Your task to perform on an android device: Do I have any events tomorrow? Image 0: 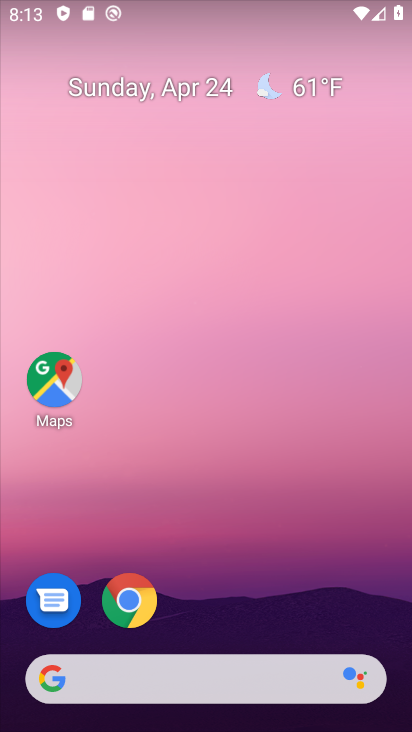
Step 0: drag from (200, 724) to (200, 139)
Your task to perform on an android device: Do I have any events tomorrow? Image 1: 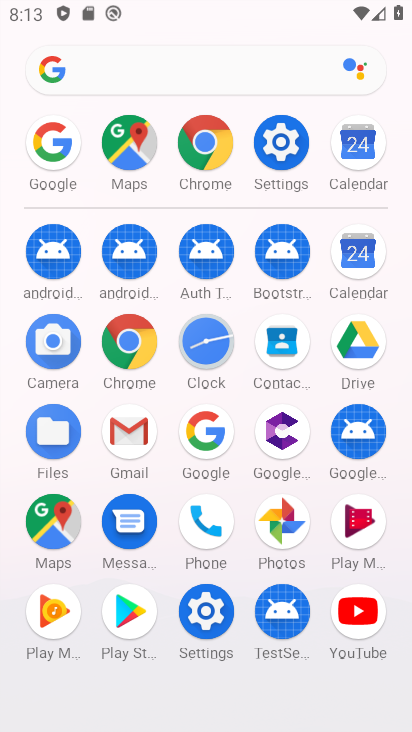
Step 1: click (357, 255)
Your task to perform on an android device: Do I have any events tomorrow? Image 2: 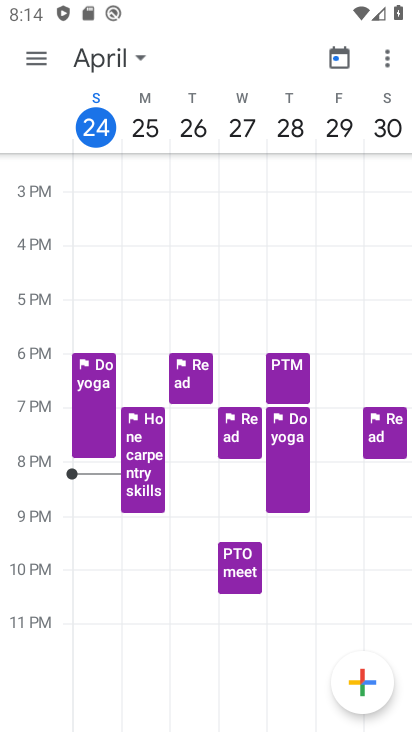
Step 2: click (144, 120)
Your task to perform on an android device: Do I have any events tomorrow? Image 3: 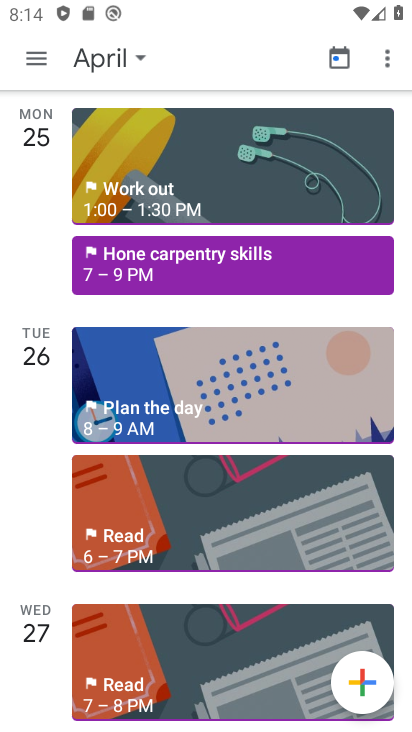
Step 3: task complete